Your task to perform on an android device: toggle pop-ups in chrome Image 0: 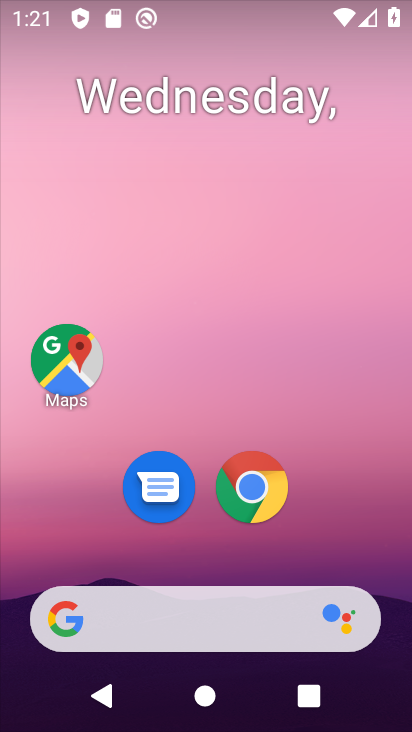
Step 0: click (255, 493)
Your task to perform on an android device: toggle pop-ups in chrome Image 1: 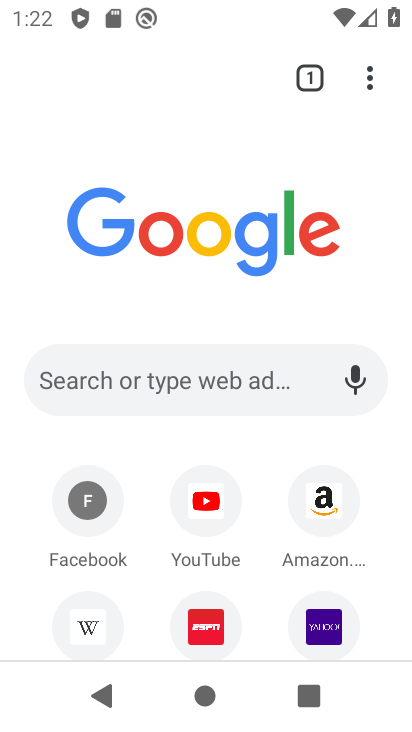
Step 1: click (364, 77)
Your task to perform on an android device: toggle pop-ups in chrome Image 2: 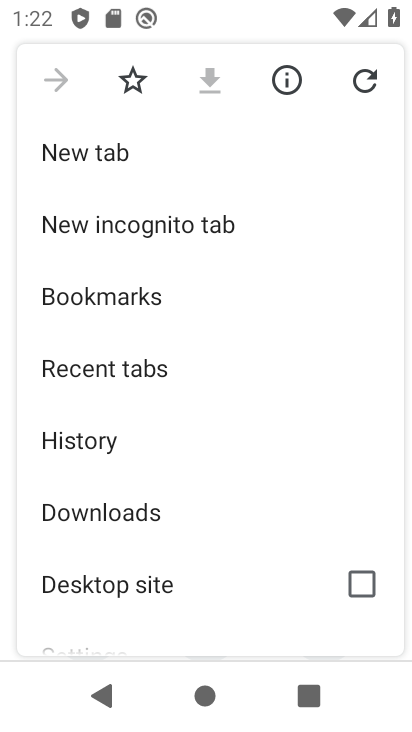
Step 2: drag from (179, 414) to (176, 100)
Your task to perform on an android device: toggle pop-ups in chrome Image 3: 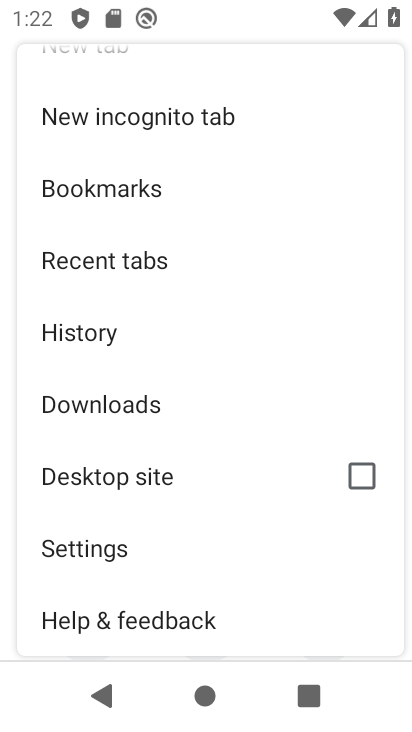
Step 3: click (87, 545)
Your task to perform on an android device: toggle pop-ups in chrome Image 4: 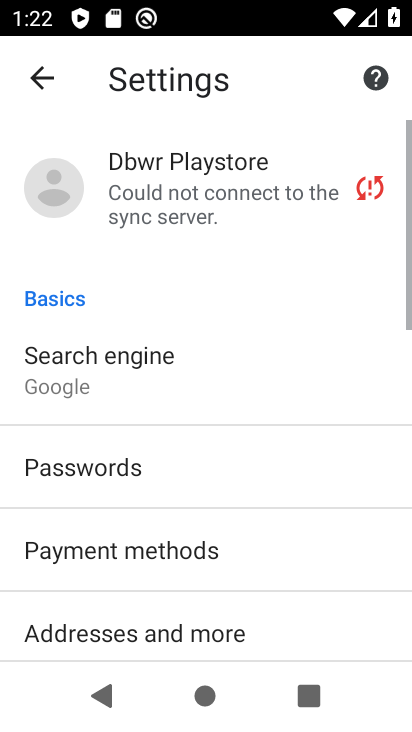
Step 4: drag from (229, 442) to (210, 228)
Your task to perform on an android device: toggle pop-ups in chrome Image 5: 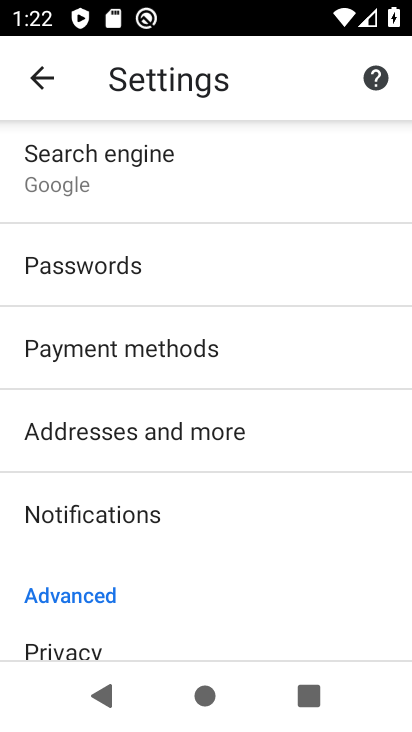
Step 5: drag from (235, 525) to (210, 277)
Your task to perform on an android device: toggle pop-ups in chrome Image 6: 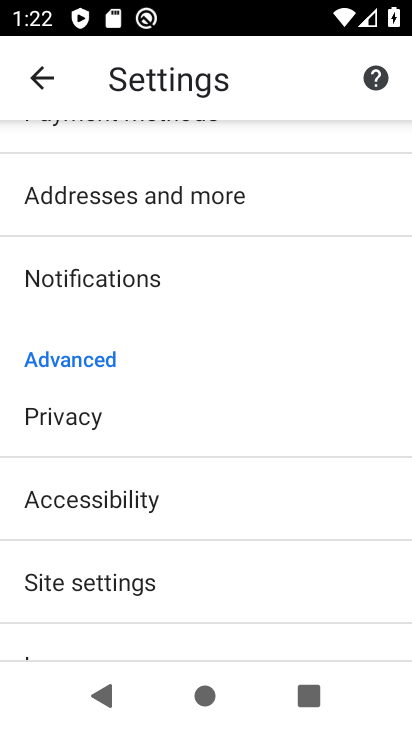
Step 6: drag from (254, 455) to (368, 107)
Your task to perform on an android device: toggle pop-ups in chrome Image 7: 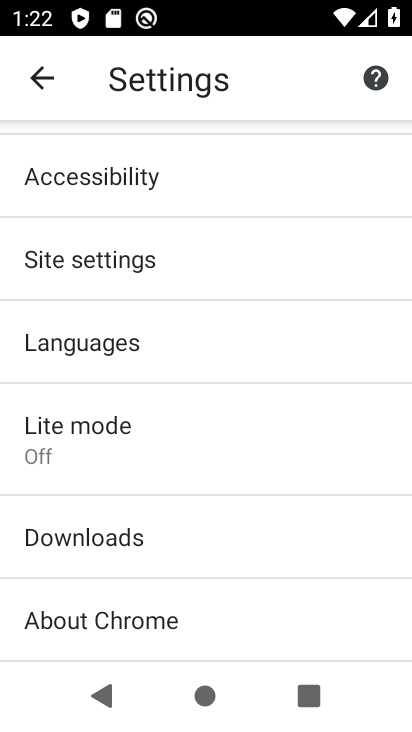
Step 7: click (118, 261)
Your task to perform on an android device: toggle pop-ups in chrome Image 8: 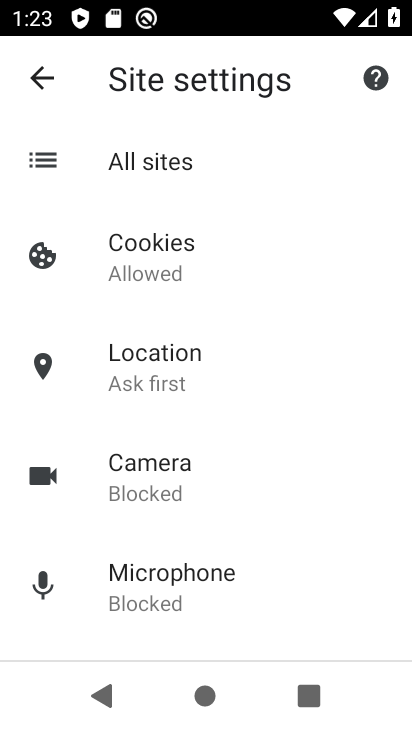
Step 8: drag from (217, 502) to (213, 287)
Your task to perform on an android device: toggle pop-ups in chrome Image 9: 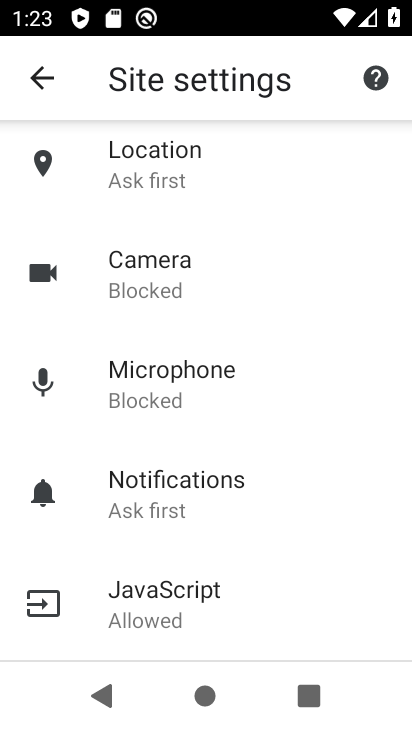
Step 9: drag from (240, 536) to (312, 162)
Your task to perform on an android device: toggle pop-ups in chrome Image 10: 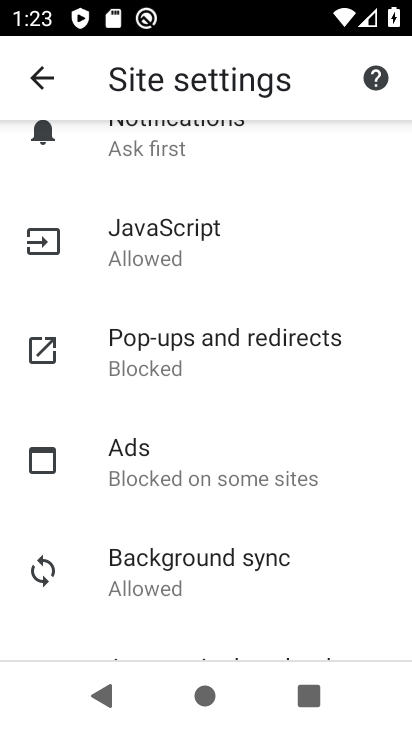
Step 10: click (174, 337)
Your task to perform on an android device: toggle pop-ups in chrome Image 11: 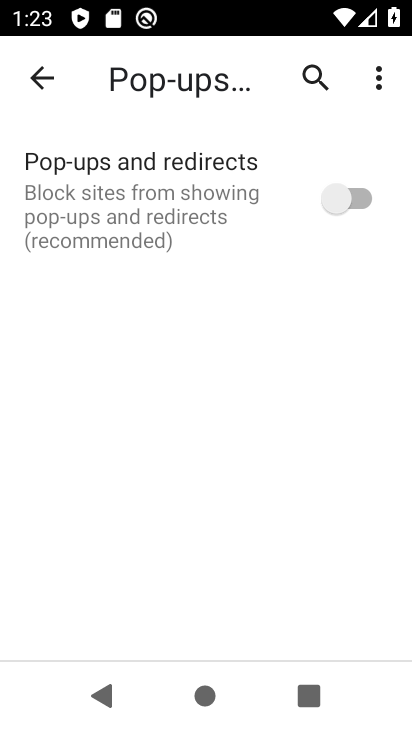
Step 11: click (326, 204)
Your task to perform on an android device: toggle pop-ups in chrome Image 12: 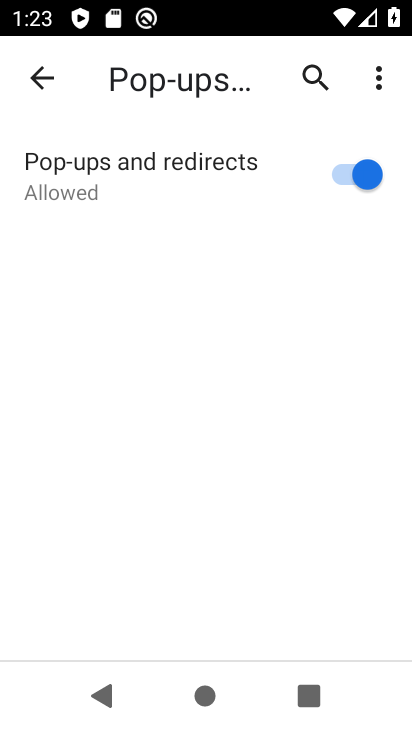
Step 12: task complete